Your task to perform on an android device: Go to Google Image 0: 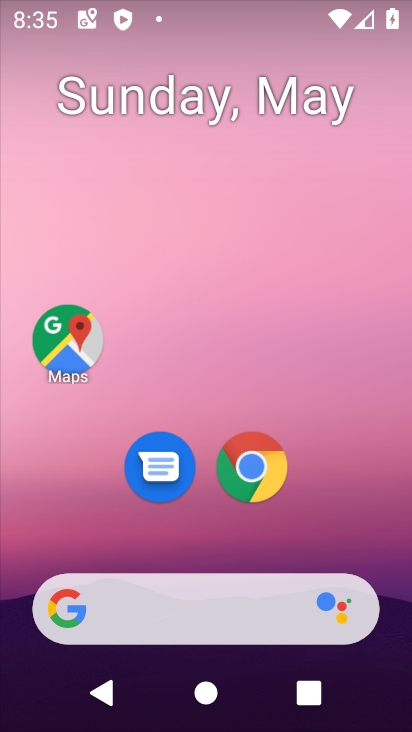
Step 0: click (170, 635)
Your task to perform on an android device: Go to Google Image 1: 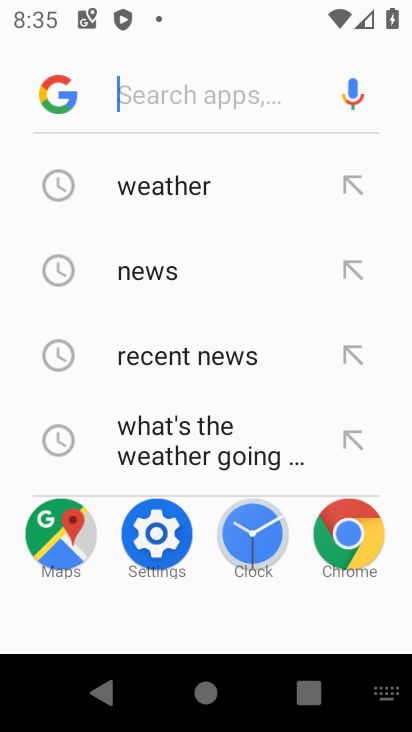
Step 1: task complete